Your task to perform on an android device: toggle javascript in the chrome app Image 0: 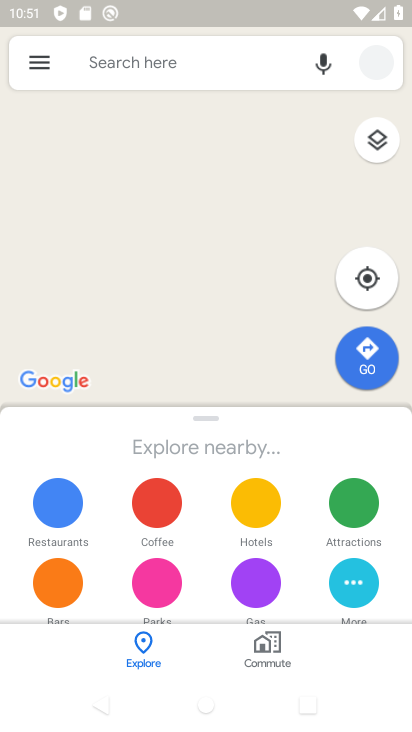
Step 0: press home button
Your task to perform on an android device: toggle javascript in the chrome app Image 1: 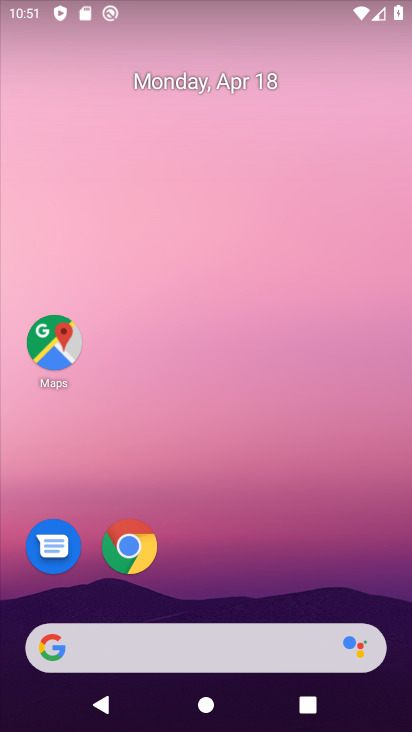
Step 1: drag from (351, 569) to (362, 136)
Your task to perform on an android device: toggle javascript in the chrome app Image 2: 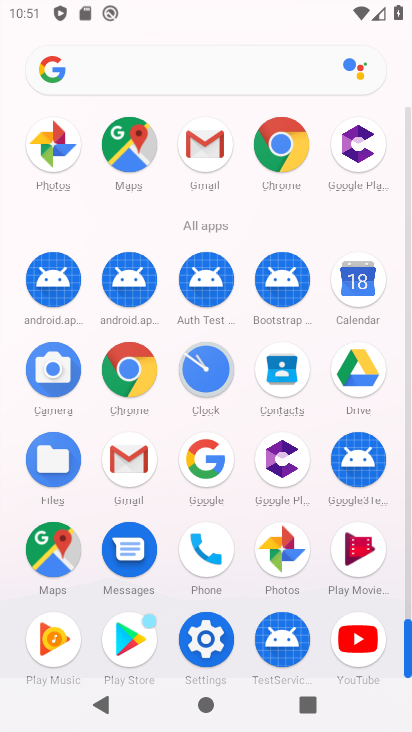
Step 2: click (130, 379)
Your task to perform on an android device: toggle javascript in the chrome app Image 3: 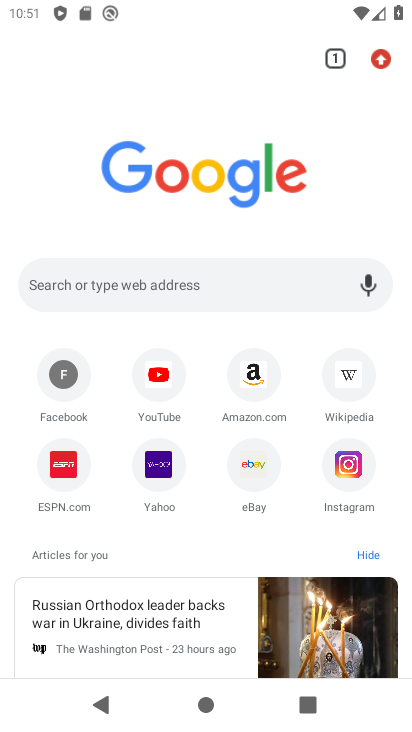
Step 3: click (382, 63)
Your task to perform on an android device: toggle javascript in the chrome app Image 4: 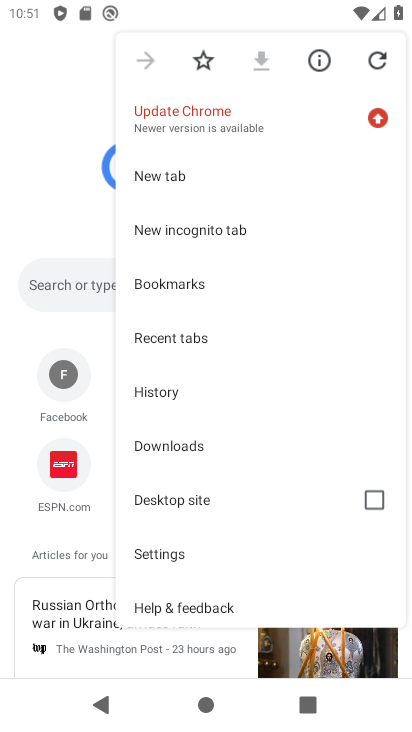
Step 4: click (170, 553)
Your task to perform on an android device: toggle javascript in the chrome app Image 5: 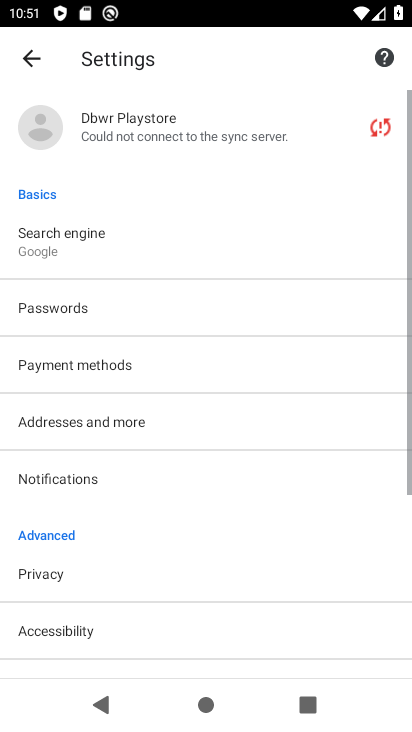
Step 5: drag from (267, 512) to (281, 329)
Your task to perform on an android device: toggle javascript in the chrome app Image 6: 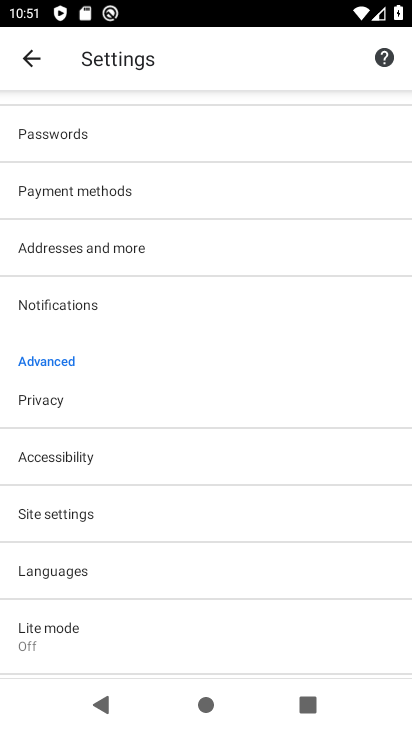
Step 6: click (268, 518)
Your task to perform on an android device: toggle javascript in the chrome app Image 7: 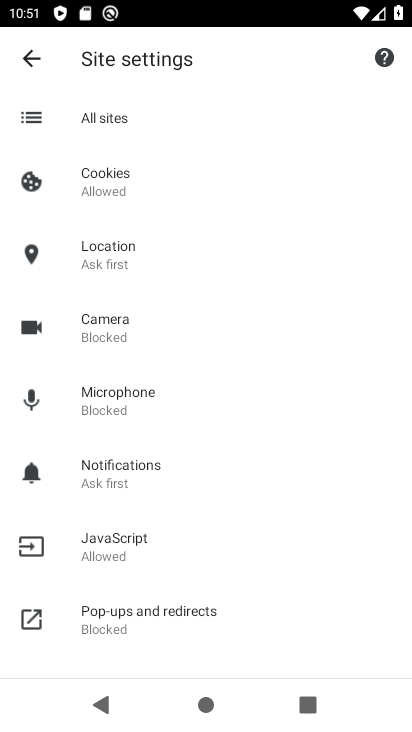
Step 7: drag from (301, 544) to (308, 312)
Your task to perform on an android device: toggle javascript in the chrome app Image 8: 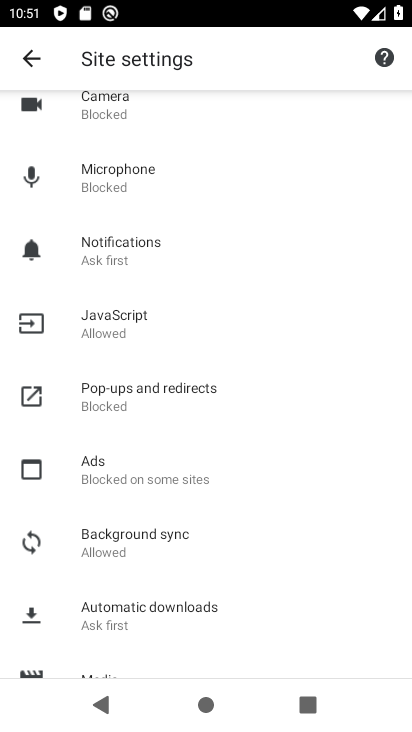
Step 8: drag from (346, 551) to (339, 402)
Your task to perform on an android device: toggle javascript in the chrome app Image 9: 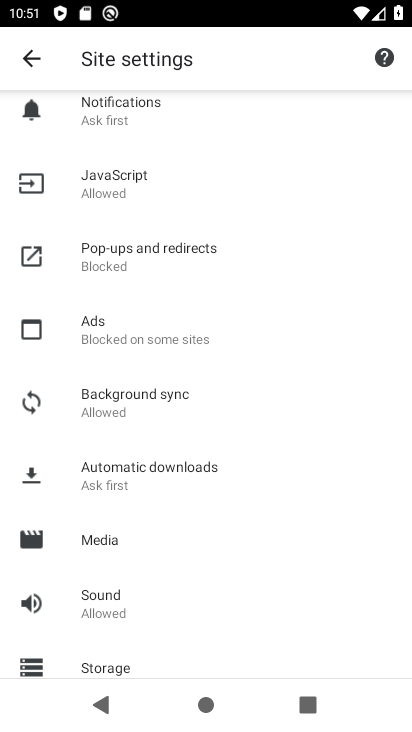
Step 9: click (141, 175)
Your task to perform on an android device: toggle javascript in the chrome app Image 10: 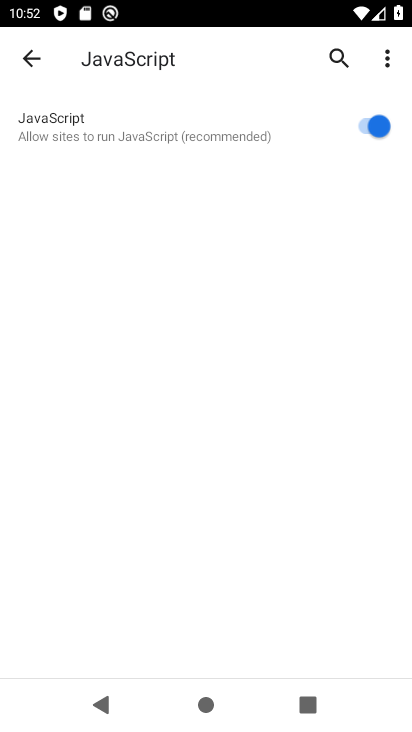
Step 10: click (374, 127)
Your task to perform on an android device: toggle javascript in the chrome app Image 11: 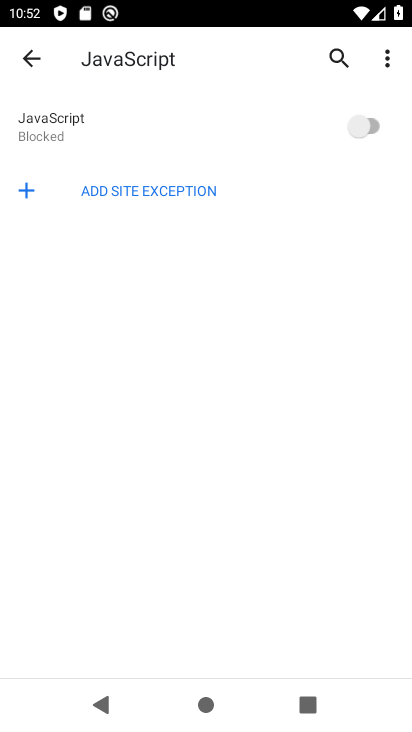
Step 11: task complete